Your task to perform on an android device: Turn on the flashlight Image 0: 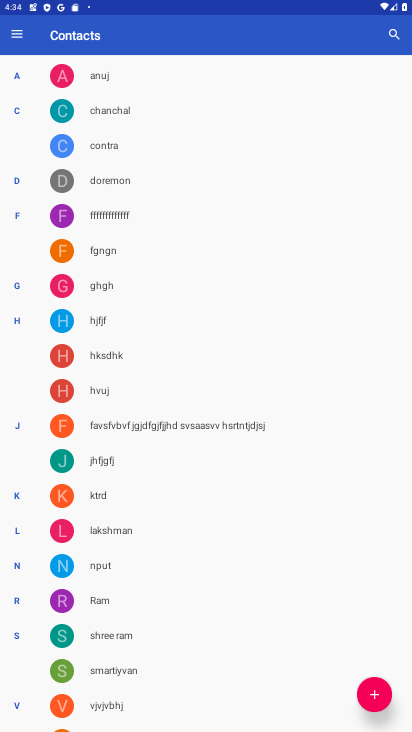
Step 0: press home button
Your task to perform on an android device: Turn on the flashlight Image 1: 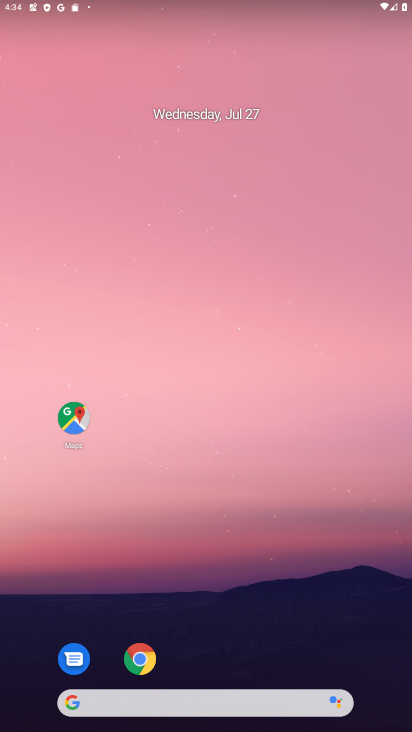
Step 1: drag from (275, 7) to (220, 601)
Your task to perform on an android device: Turn on the flashlight Image 2: 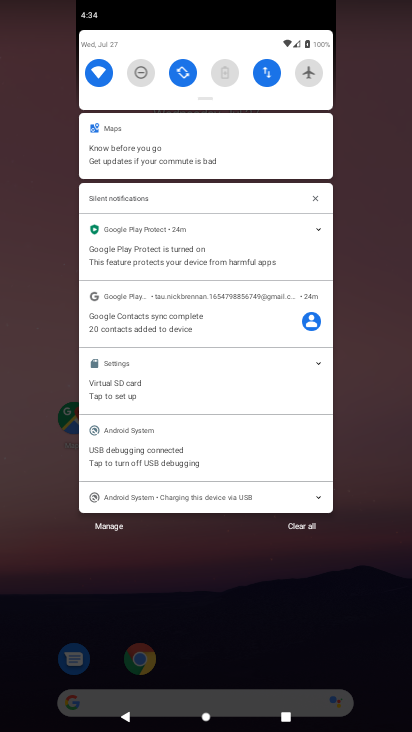
Step 2: drag from (200, 92) to (214, 392)
Your task to perform on an android device: Turn on the flashlight Image 3: 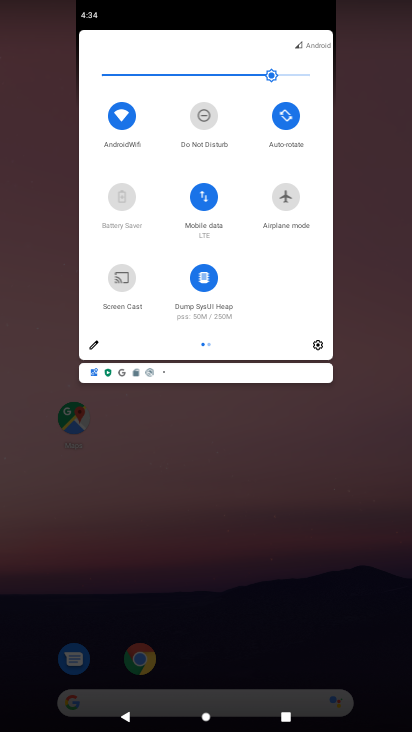
Step 3: click (95, 340)
Your task to perform on an android device: Turn on the flashlight Image 4: 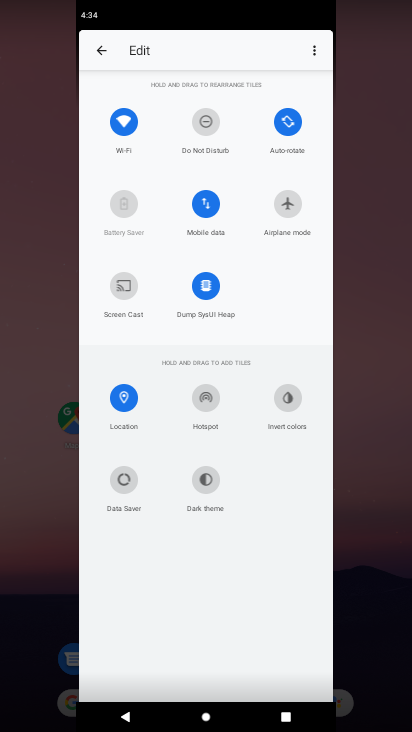
Step 4: task complete